Your task to perform on an android device: Go to Amazon Image 0: 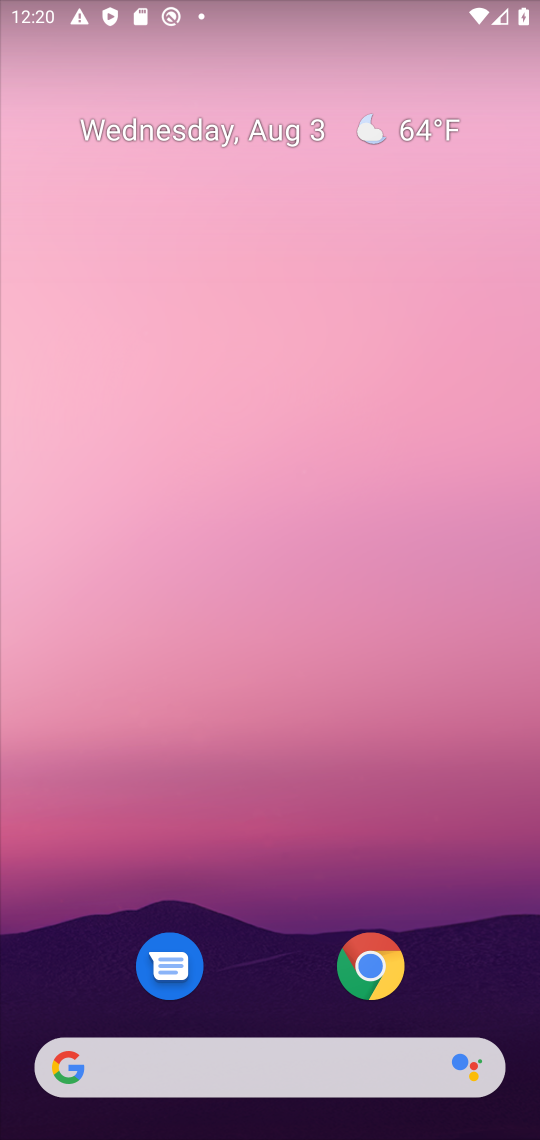
Step 0: click (362, 941)
Your task to perform on an android device: Go to Amazon Image 1: 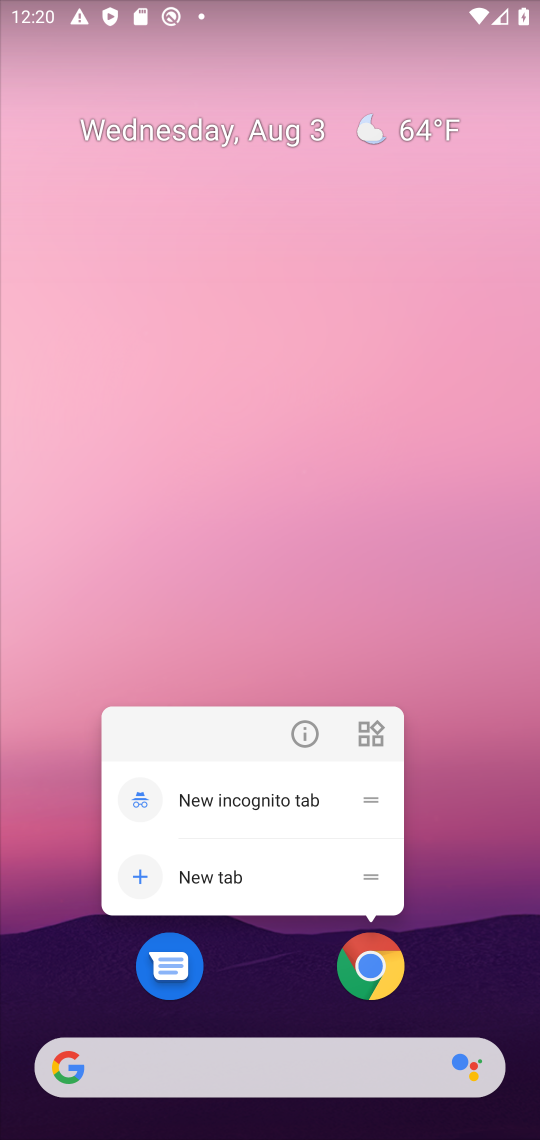
Step 1: click (360, 973)
Your task to perform on an android device: Go to Amazon Image 2: 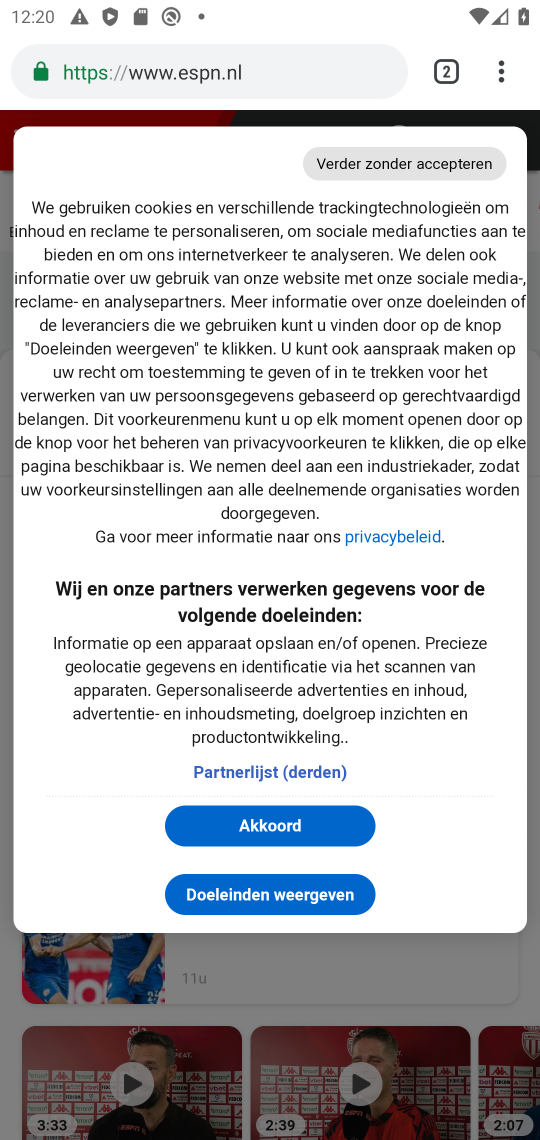
Step 2: click (441, 87)
Your task to perform on an android device: Go to Amazon Image 3: 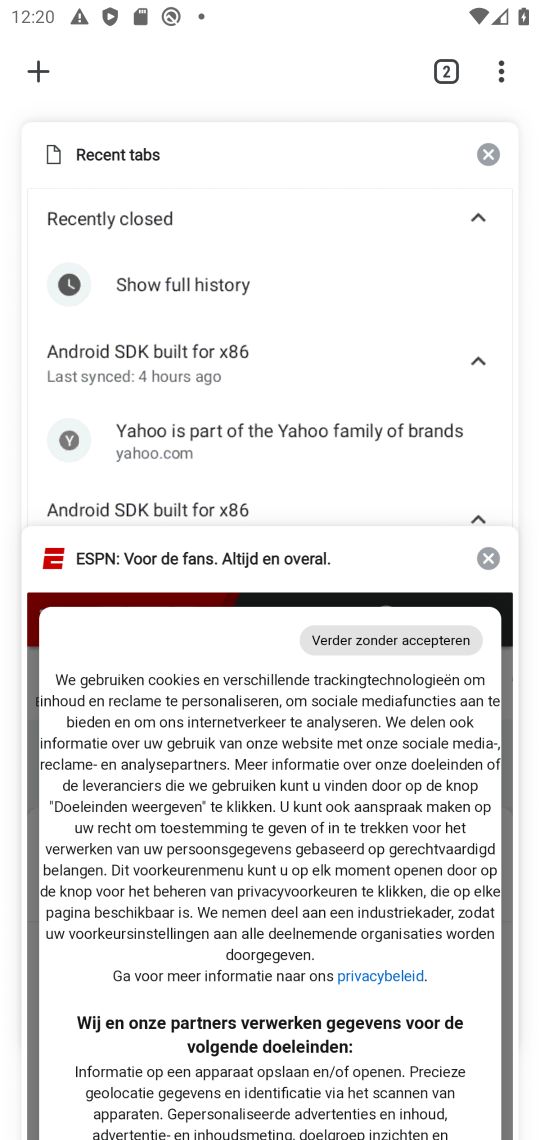
Step 3: click (25, 64)
Your task to perform on an android device: Go to Amazon Image 4: 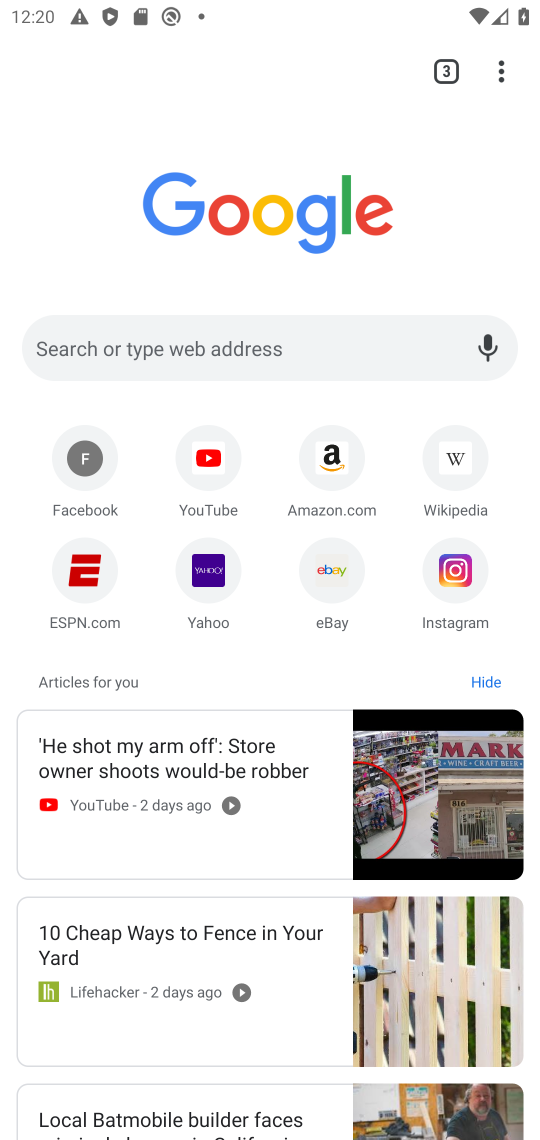
Step 4: click (329, 463)
Your task to perform on an android device: Go to Amazon Image 5: 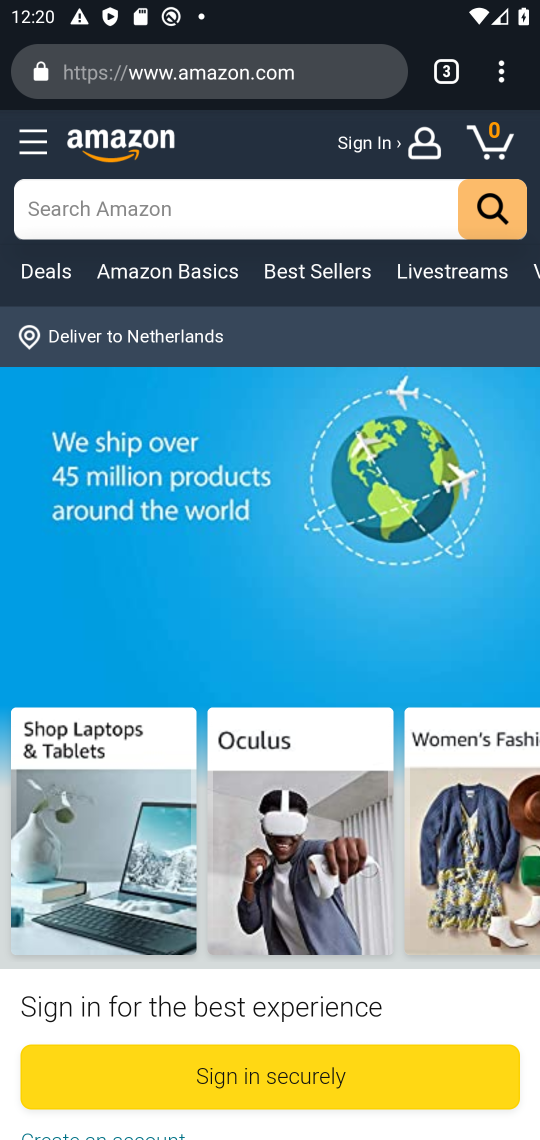
Step 5: task complete